Your task to perform on an android device: find which apps use the phone's location Image 0: 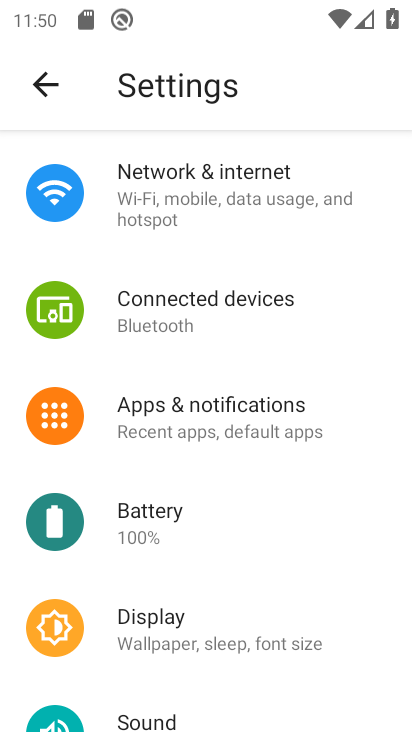
Step 0: drag from (353, 619) to (359, 202)
Your task to perform on an android device: find which apps use the phone's location Image 1: 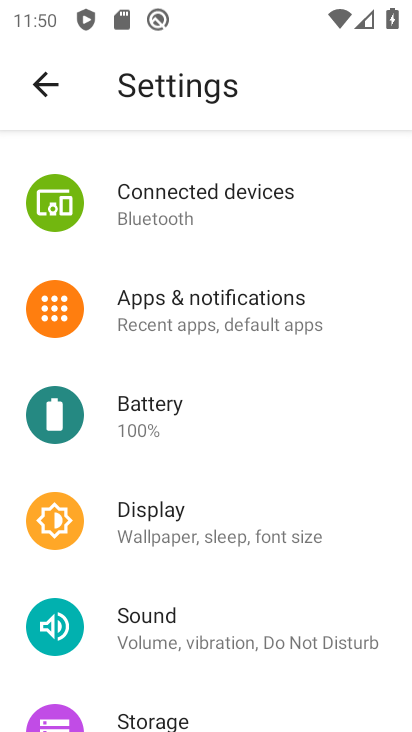
Step 1: drag from (218, 648) to (231, 357)
Your task to perform on an android device: find which apps use the phone's location Image 2: 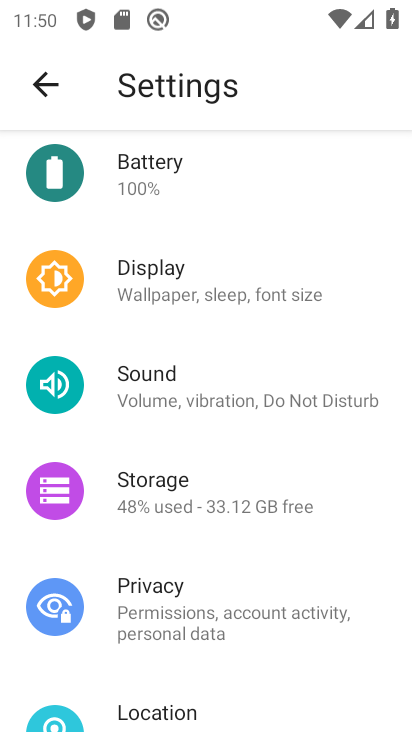
Step 2: click (213, 695)
Your task to perform on an android device: find which apps use the phone's location Image 3: 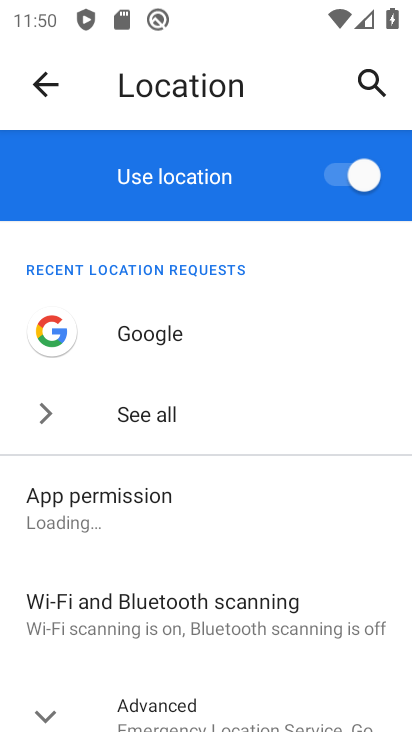
Step 3: task complete